Your task to perform on an android device: Search for the best rated running shoes on Nike.com Image 0: 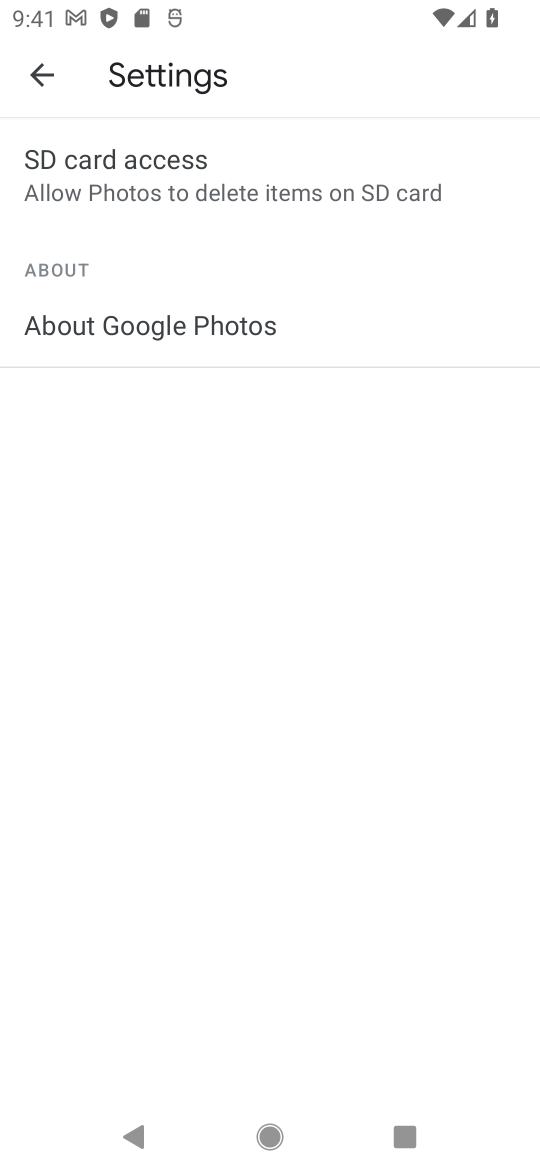
Step 0: press home button
Your task to perform on an android device: Search for the best rated running shoes on Nike.com Image 1: 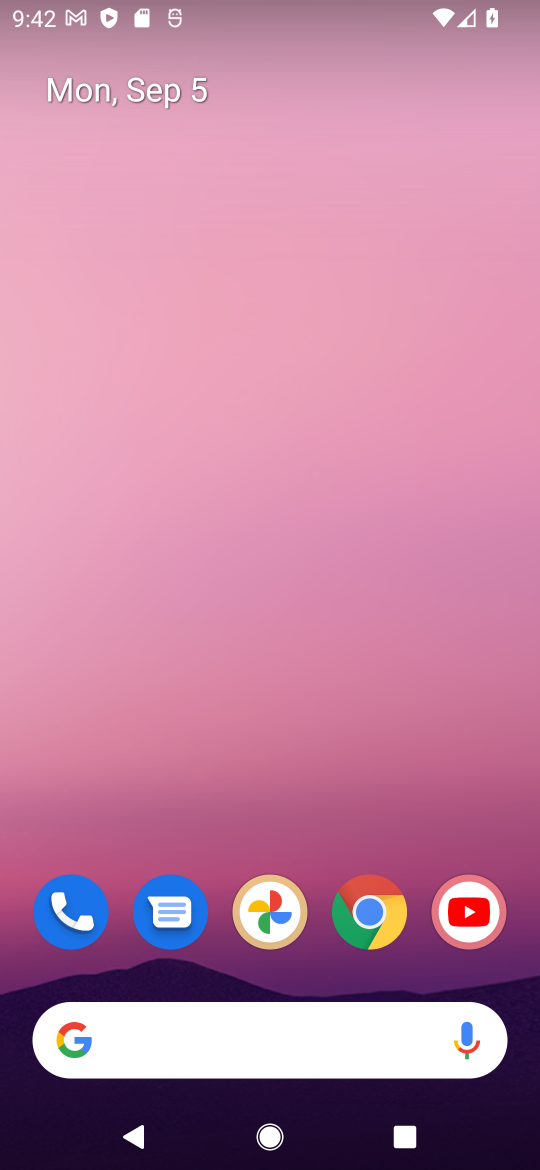
Step 1: click (364, 908)
Your task to perform on an android device: Search for the best rated running shoes on Nike.com Image 2: 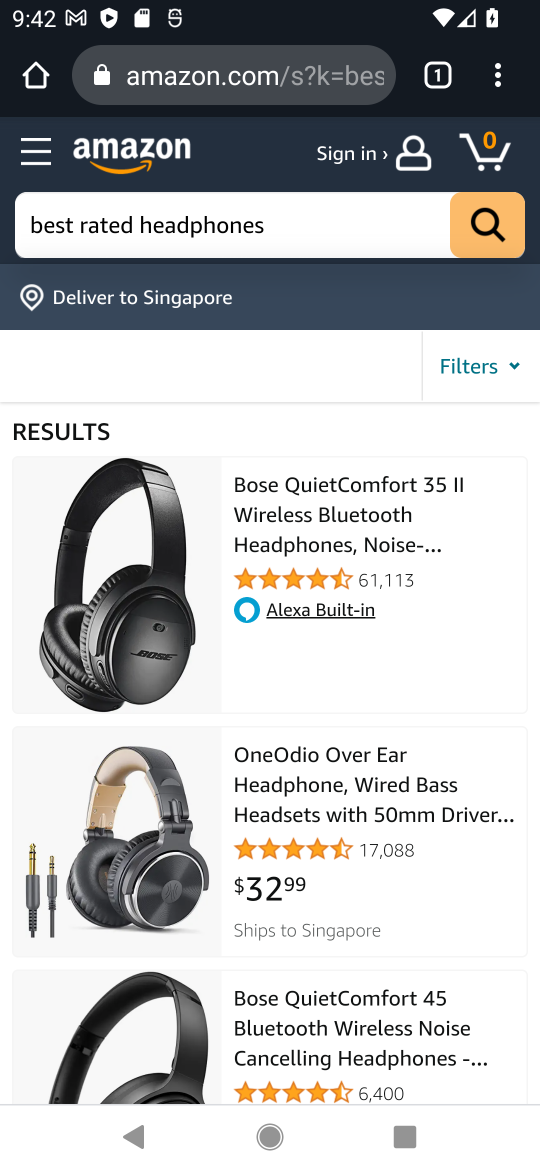
Step 2: click (250, 78)
Your task to perform on an android device: Search for the best rated running shoes on Nike.com Image 3: 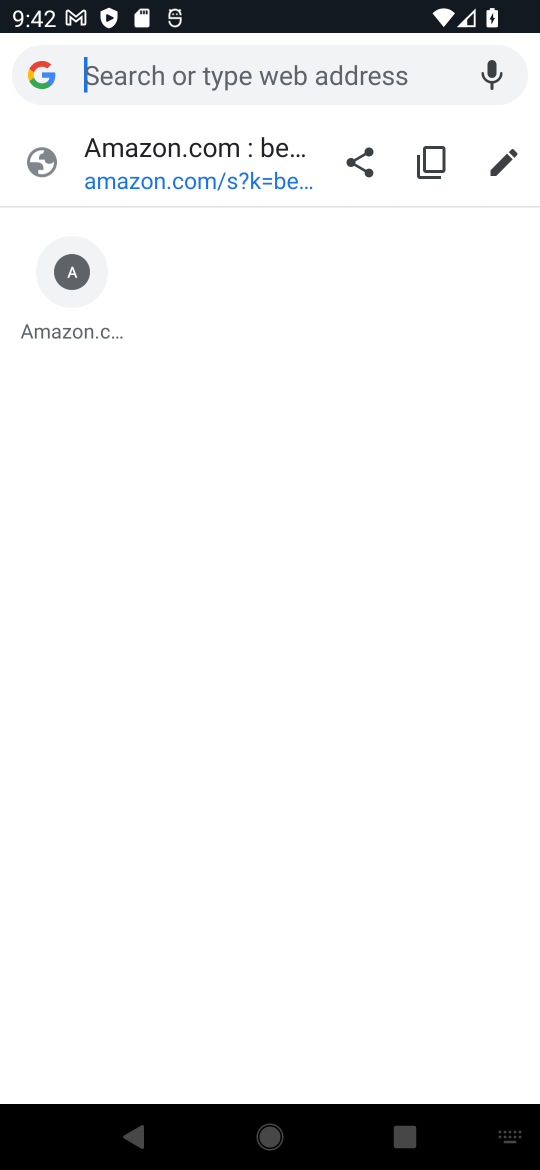
Step 3: type "nike.com"
Your task to perform on an android device: Search for the best rated running shoes on Nike.com Image 4: 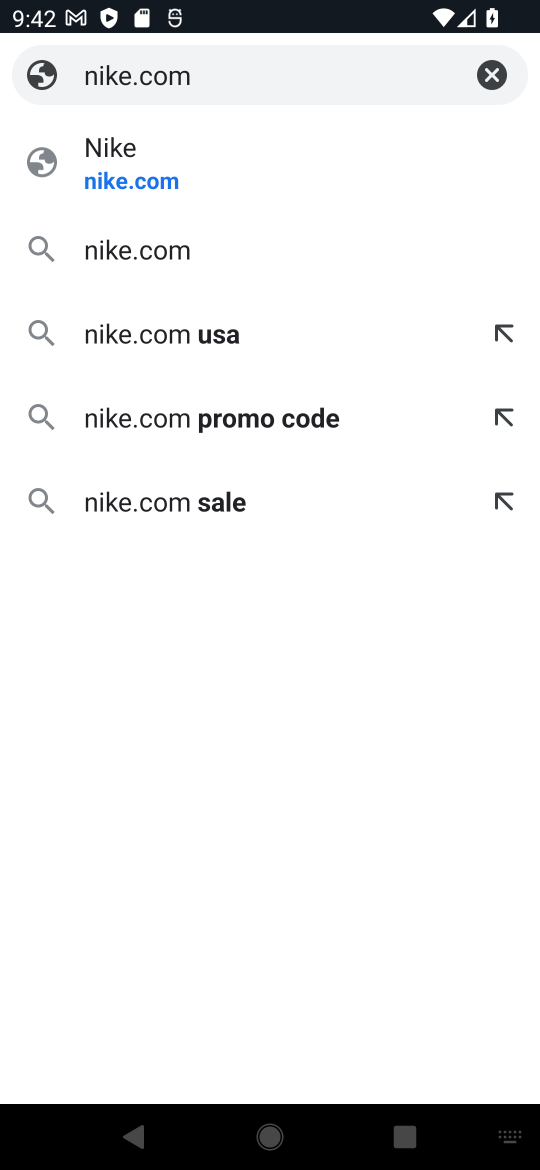
Step 4: click (103, 173)
Your task to perform on an android device: Search for the best rated running shoes on Nike.com Image 5: 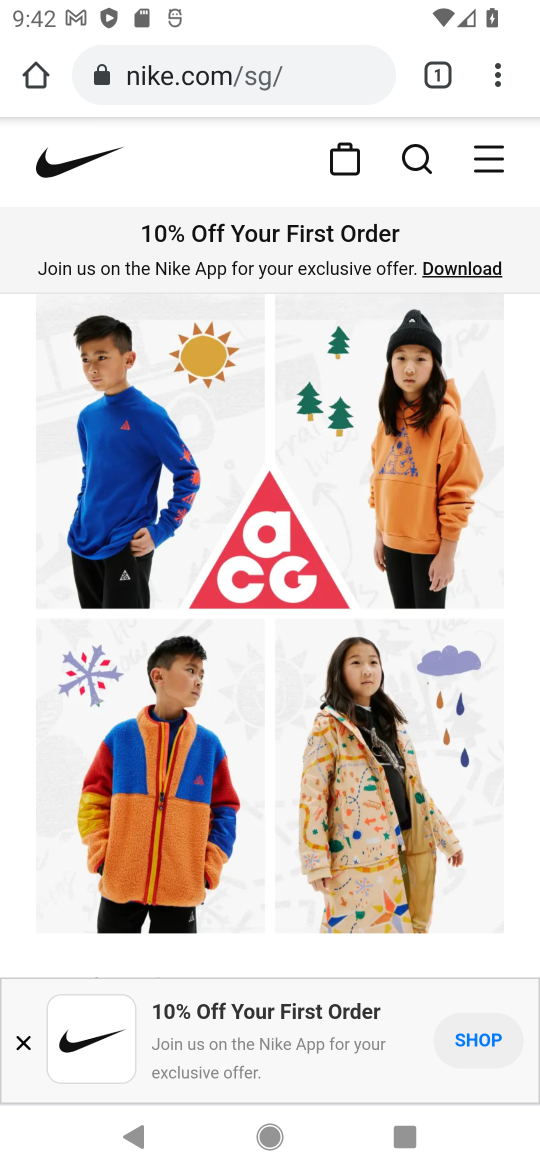
Step 5: click (411, 170)
Your task to perform on an android device: Search for the best rated running shoes on Nike.com Image 6: 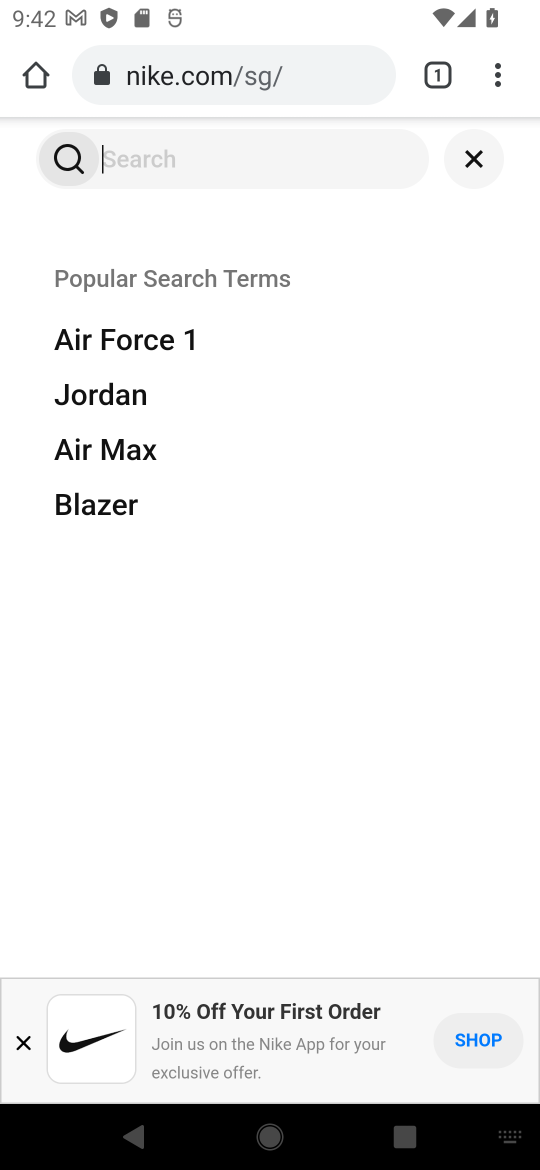
Step 6: type "best rated running shoes"
Your task to perform on an android device: Search for the best rated running shoes on Nike.com Image 7: 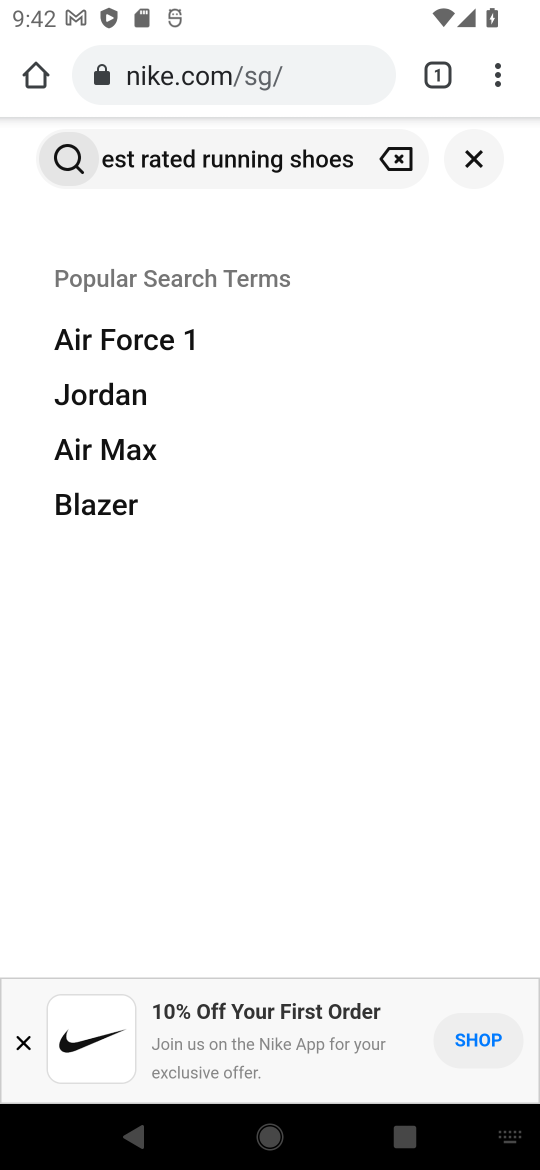
Step 7: click (64, 158)
Your task to perform on an android device: Search for the best rated running shoes on Nike.com Image 8: 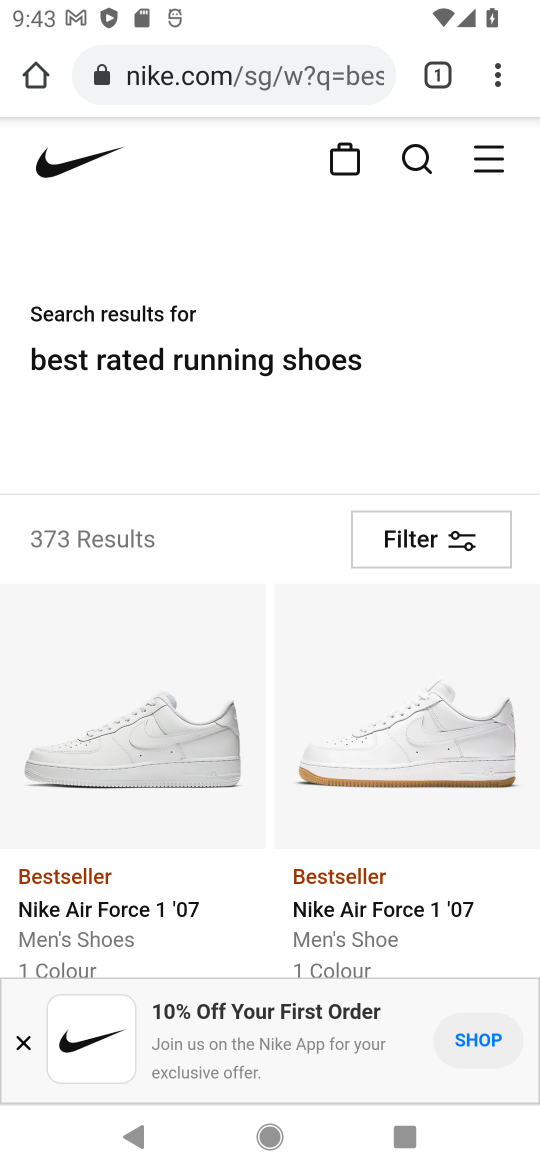
Step 8: task complete